Your task to perform on an android device: toggle javascript in the chrome app Image 0: 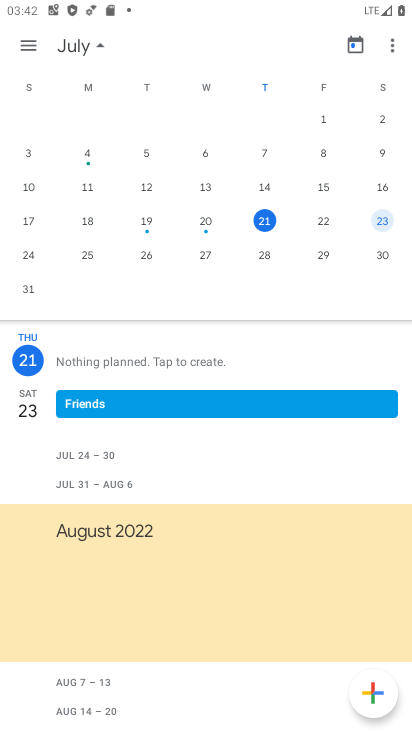
Step 0: press home button
Your task to perform on an android device: toggle javascript in the chrome app Image 1: 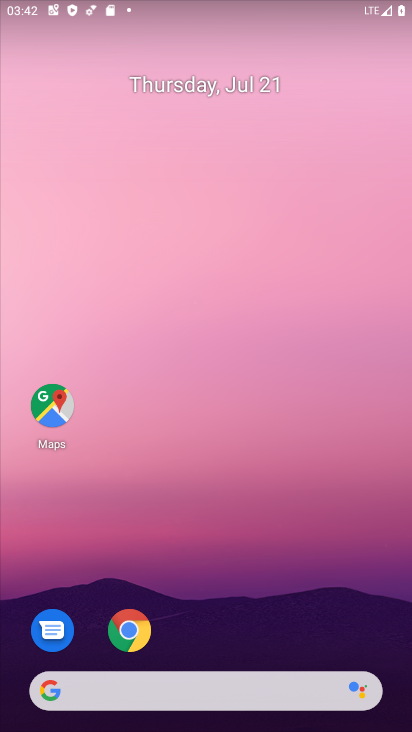
Step 1: click (149, 623)
Your task to perform on an android device: toggle javascript in the chrome app Image 2: 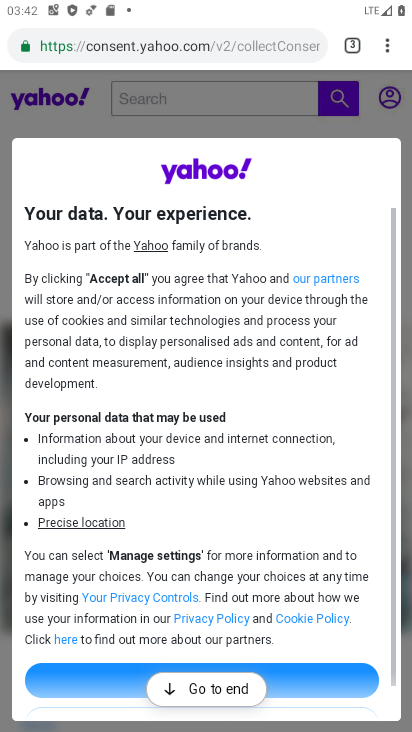
Step 2: click (387, 51)
Your task to perform on an android device: toggle javascript in the chrome app Image 3: 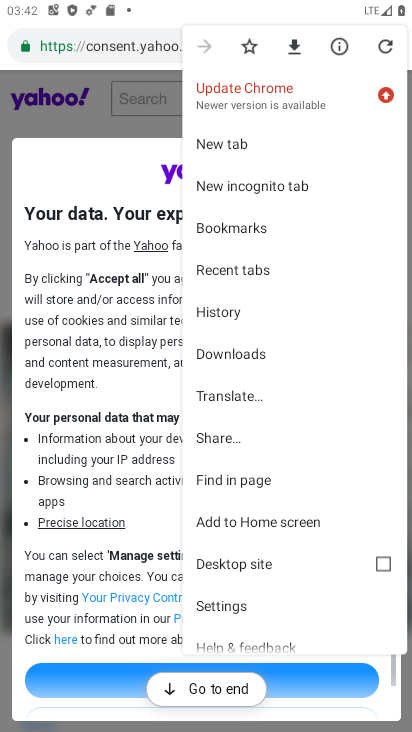
Step 3: click (255, 612)
Your task to perform on an android device: toggle javascript in the chrome app Image 4: 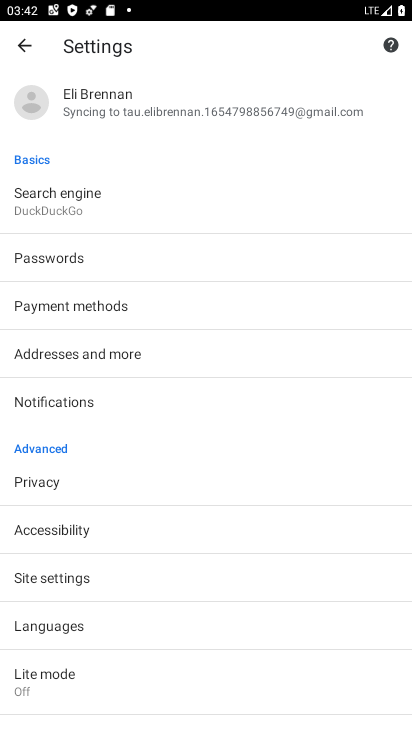
Step 4: click (67, 580)
Your task to perform on an android device: toggle javascript in the chrome app Image 5: 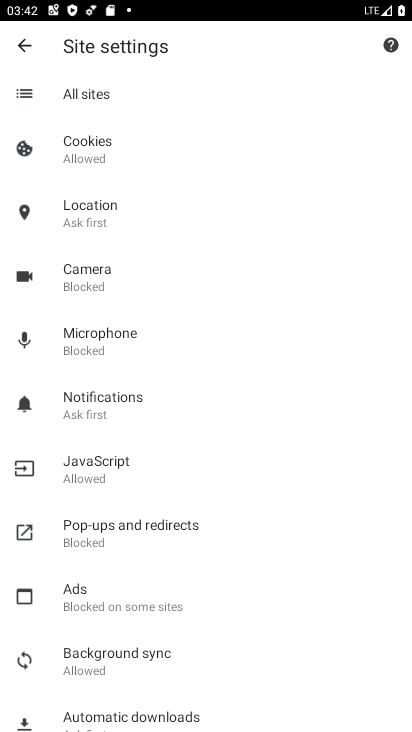
Step 5: click (167, 465)
Your task to perform on an android device: toggle javascript in the chrome app Image 6: 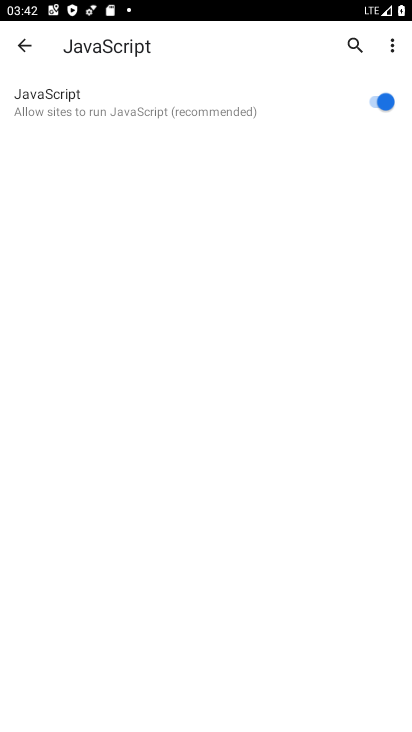
Step 6: click (367, 102)
Your task to perform on an android device: toggle javascript in the chrome app Image 7: 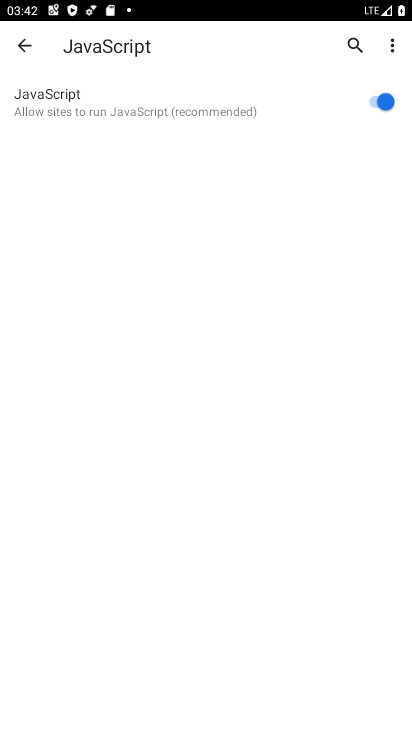
Step 7: click (367, 102)
Your task to perform on an android device: toggle javascript in the chrome app Image 8: 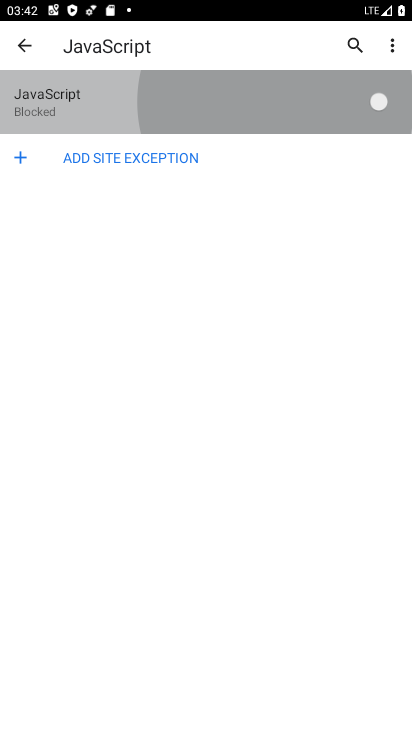
Step 8: click (367, 102)
Your task to perform on an android device: toggle javascript in the chrome app Image 9: 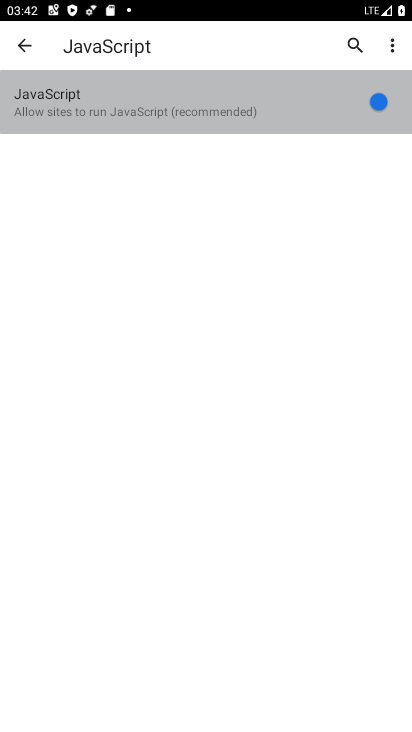
Step 9: click (367, 102)
Your task to perform on an android device: toggle javascript in the chrome app Image 10: 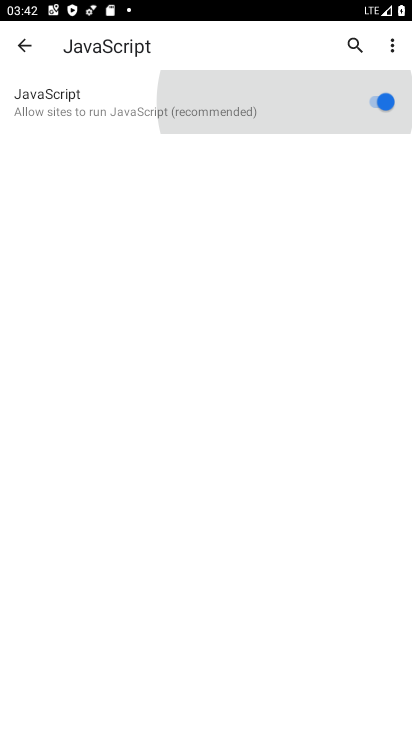
Step 10: click (367, 102)
Your task to perform on an android device: toggle javascript in the chrome app Image 11: 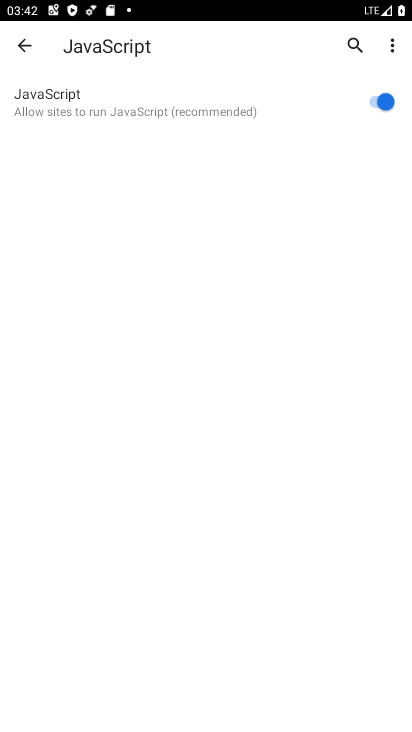
Step 11: task complete